Your task to perform on an android device: turn on location history Image 0: 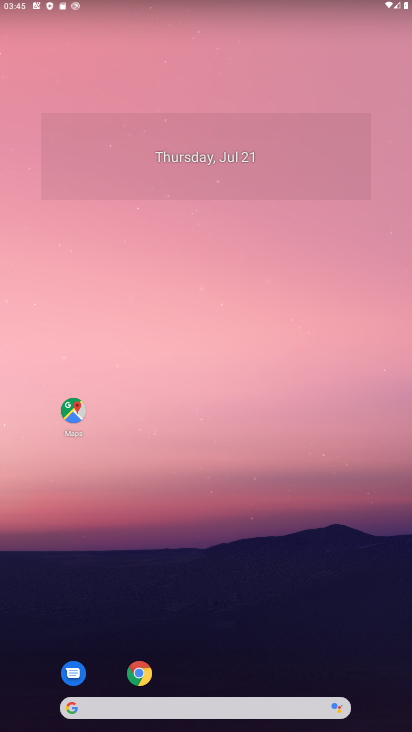
Step 0: drag from (294, 635) to (242, 22)
Your task to perform on an android device: turn on location history Image 1: 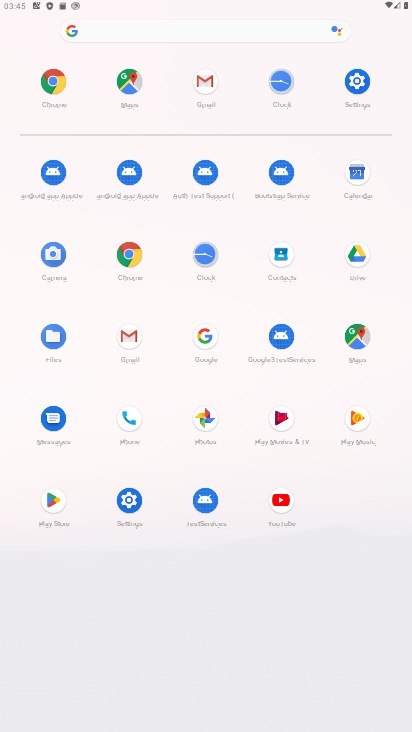
Step 1: click (360, 75)
Your task to perform on an android device: turn on location history Image 2: 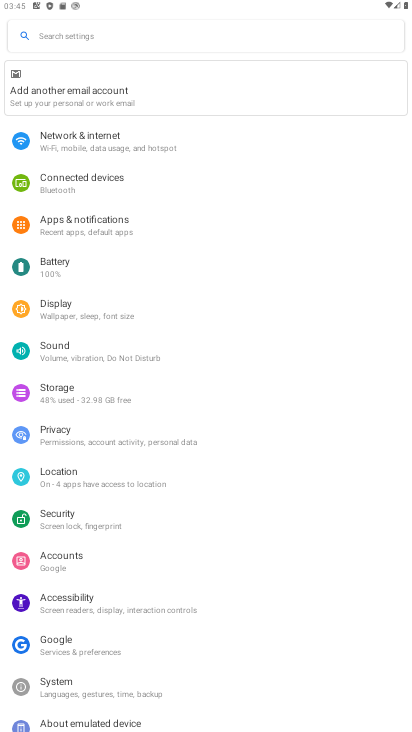
Step 2: click (53, 486)
Your task to perform on an android device: turn on location history Image 3: 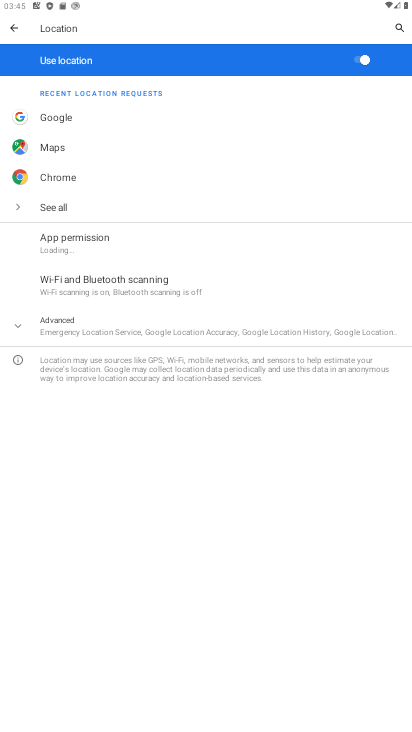
Step 3: click (96, 324)
Your task to perform on an android device: turn on location history Image 4: 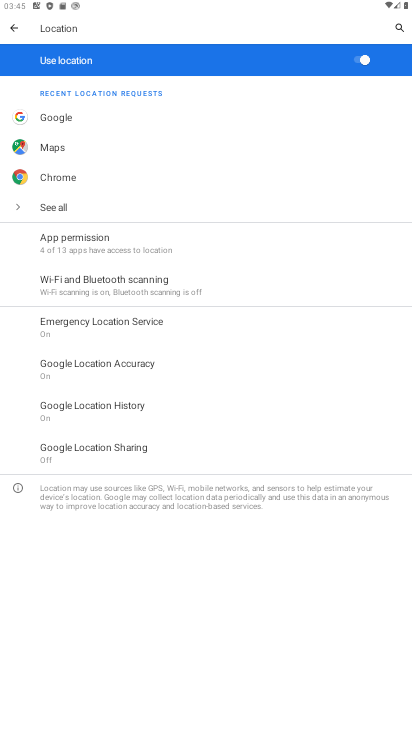
Step 4: click (139, 399)
Your task to perform on an android device: turn on location history Image 5: 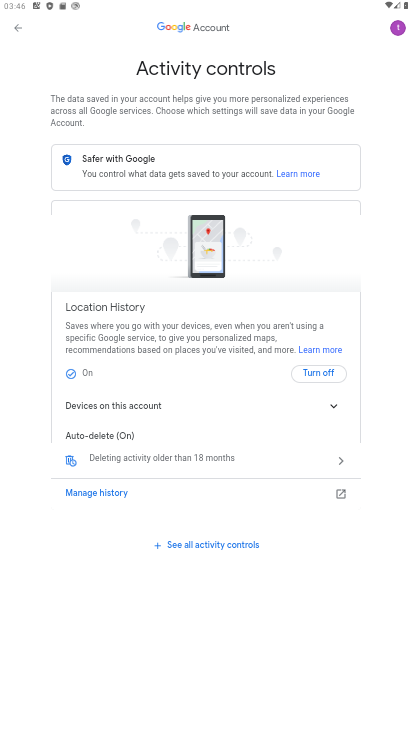
Step 5: task complete